Your task to perform on an android device: open device folders in google photos Image 0: 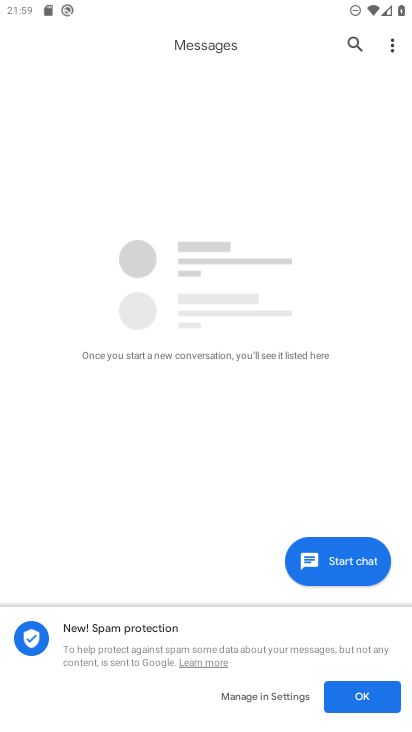
Step 0: press home button
Your task to perform on an android device: open device folders in google photos Image 1: 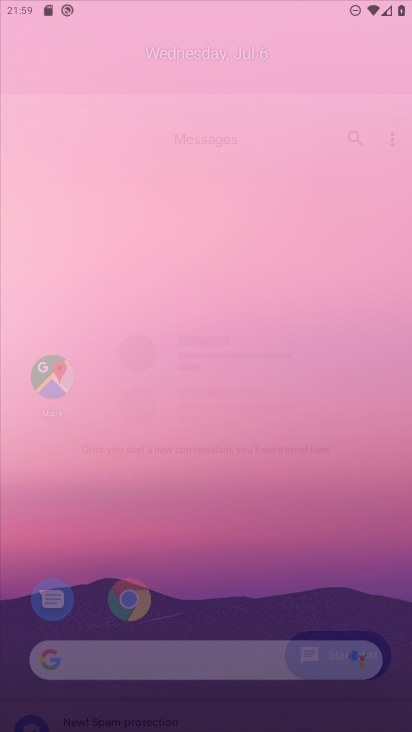
Step 1: drag from (206, 584) to (298, 2)
Your task to perform on an android device: open device folders in google photos Image 2: 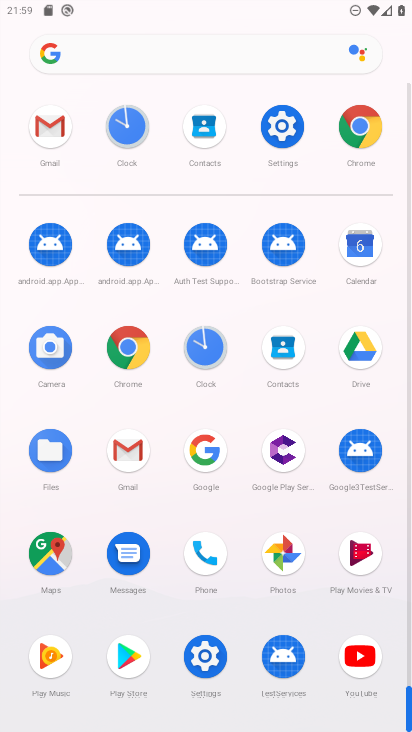
Step 2: click (287, 557)
Your task to perform on an android device: open device folders in google photos Image 3: 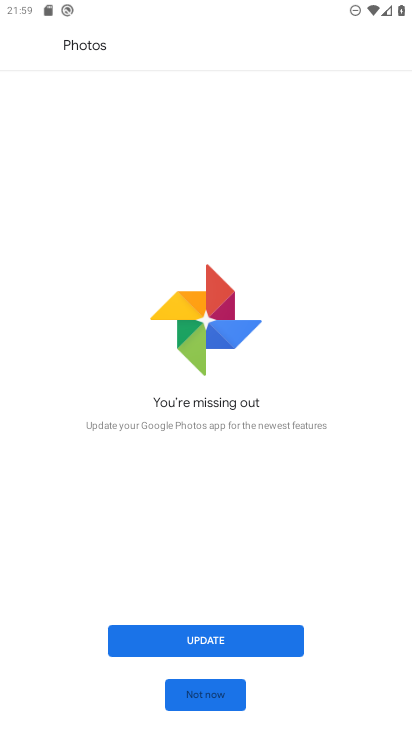
Step 3: click (216, 642)
Your task to perform on an android device: open device folders in google photos Image 4: 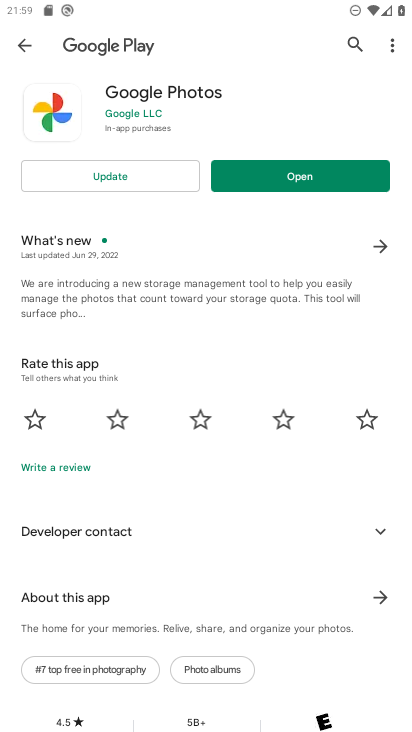
Step 4: click (111, 178)
Your task to perform on an android device: open device folders in google photos Image 5: 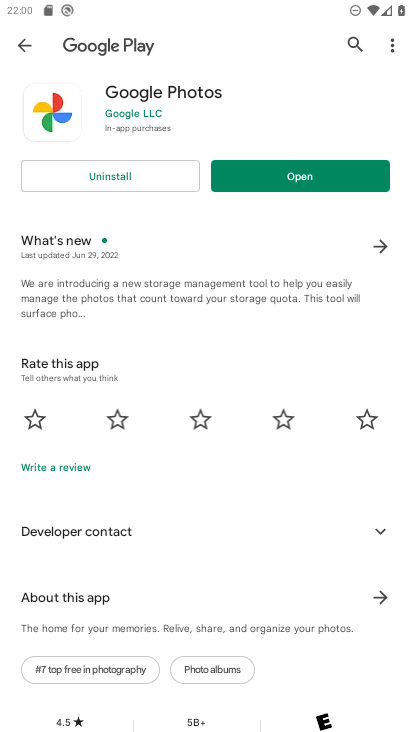
Step 5: click (237, 178)
Your task to perform on an android device: open device folders in google photos Image 6: 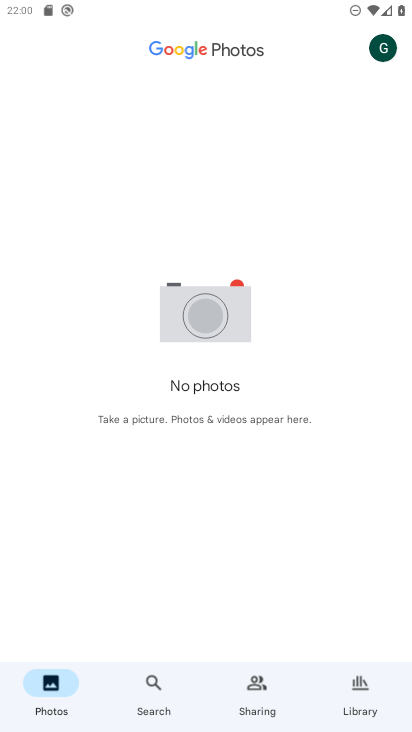
Step 6: task complete